Your task to perform on an android device: Open sound settings Image 0: 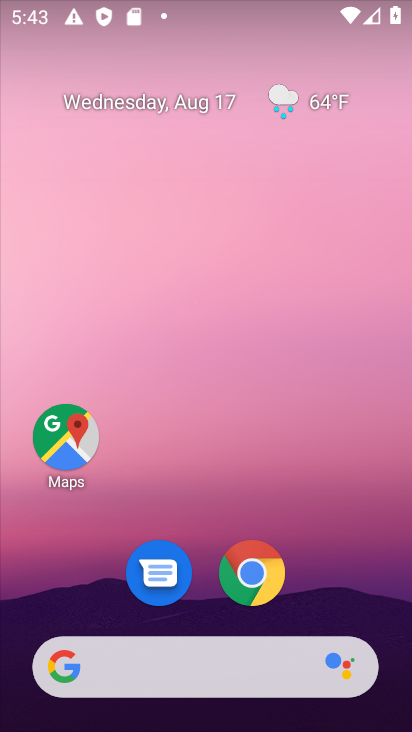
Step 0: drag from (343, 593) to (352, 50)
Your task to perform on an android device: Open sound settings Image 1: 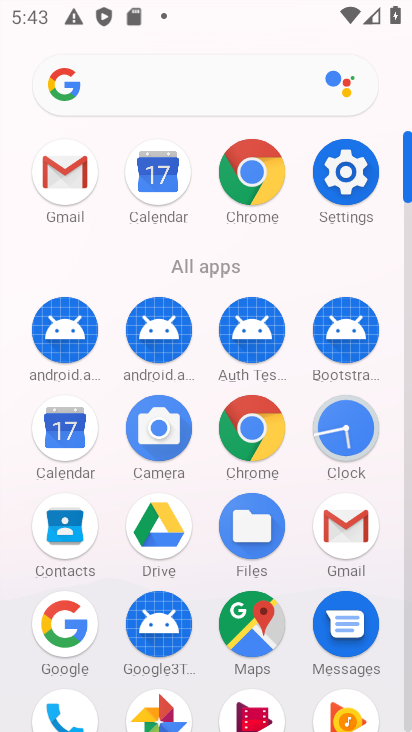
Step 1: click (346, 142)
Your task to perform on an android device: Open sound settings Image 2: 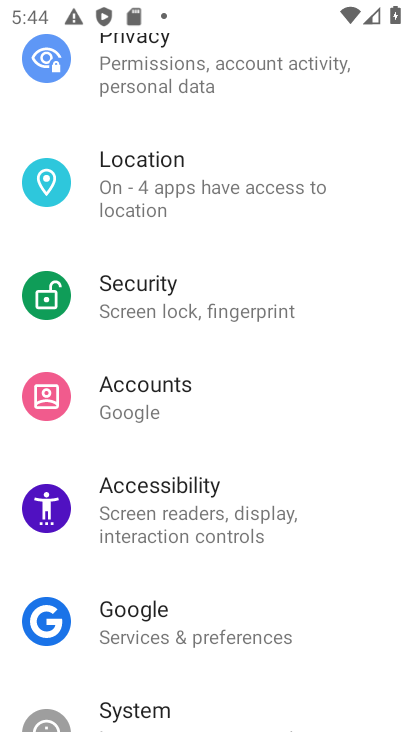
Step 2: drag from (330, 142) to (223, 596)
Your task to perform on an android device: Open sound settings Image 3: 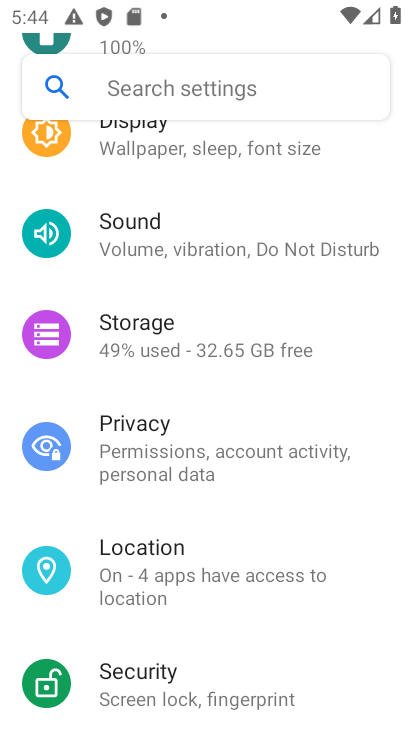
Step 3: click (161, 218)
Your task to perform on an android device: Open sound settings Image 4: 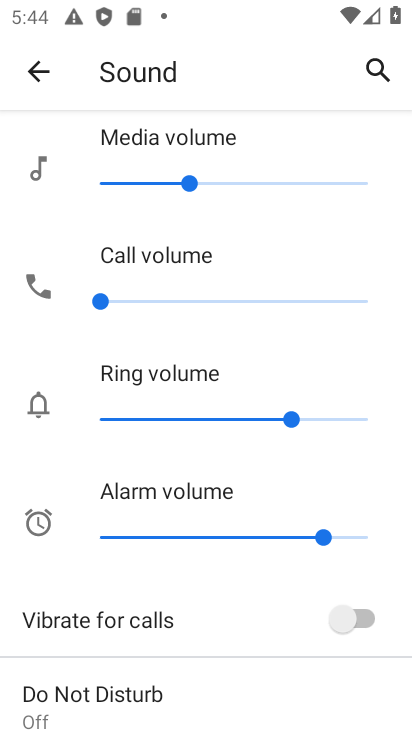
Step 4: task complete